Your task to perform on an android device: visit the assistant section in the google photos Image 0: 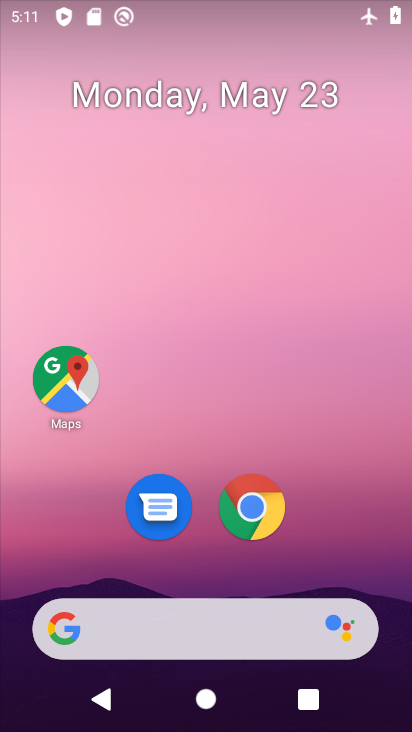
Step 0: drag from (313, 534) to (351, 93)
Your task to perform on an android device: visit the assistant section in the google photos Image 1: 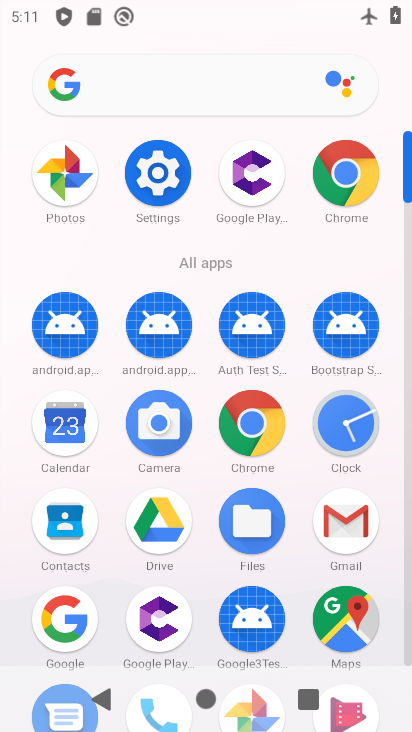
Step 1: drag from (307, 286) to (307, 41)
Your task to perform on an android device: visit the assistant section in the google photos Image 2: 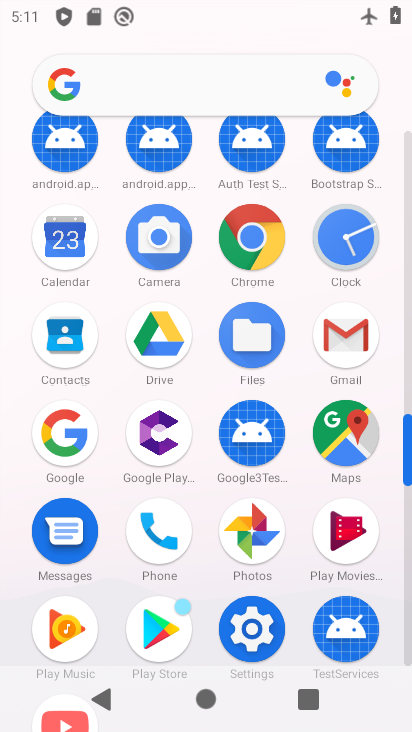
Step 2: click (271, 534)
Your task to perform on an android device: visit the assistant section in the google photos Image 3: 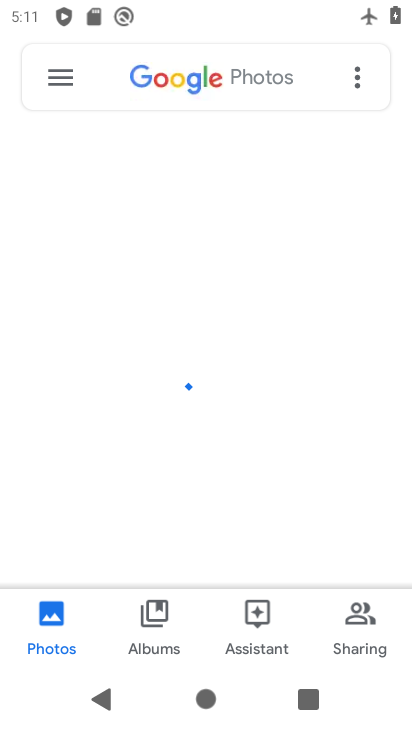
Step 3: drag from (327, 8) to (322, 485)
Your task to perform on an android device: visit the assistant section in the google photos Image 4: 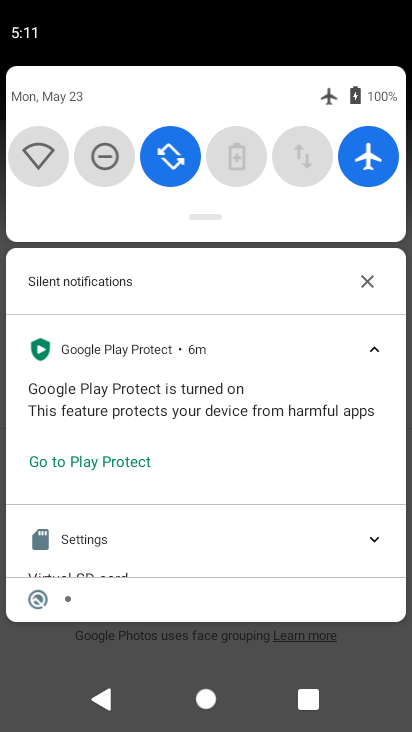
Step 4: click (375, 153)
Your task to perform on an android device: visit the assistant section in the google photos Image 5: 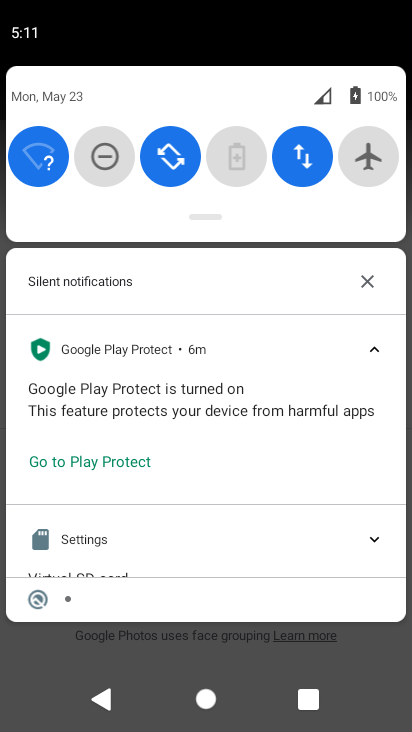
Step 5: drag from (341, 673) to (350, 67)
Your task to perform on an android device: visit the assistant section in the google photos Image 6: 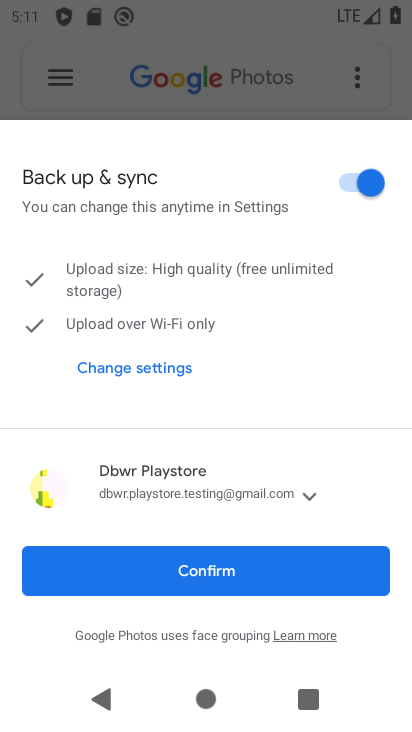
Step 6: click (258, 566)
Your task to perform on an android device: visit the assistant section in the google photos Image 7: 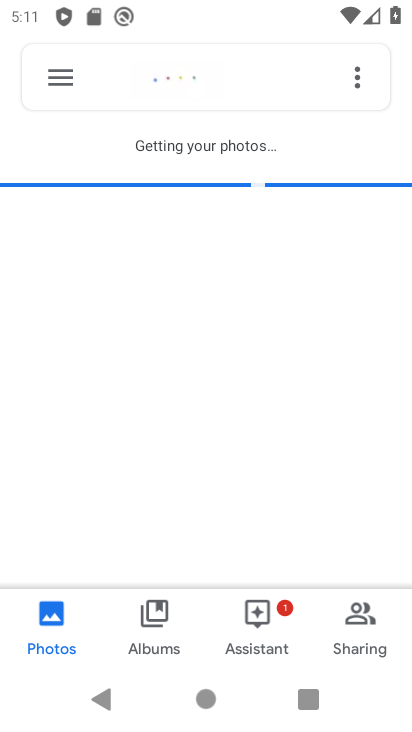
Step 7: click (254, 609)
Your task to perform on an android device: visit the assistant section in the google photos Image 8: 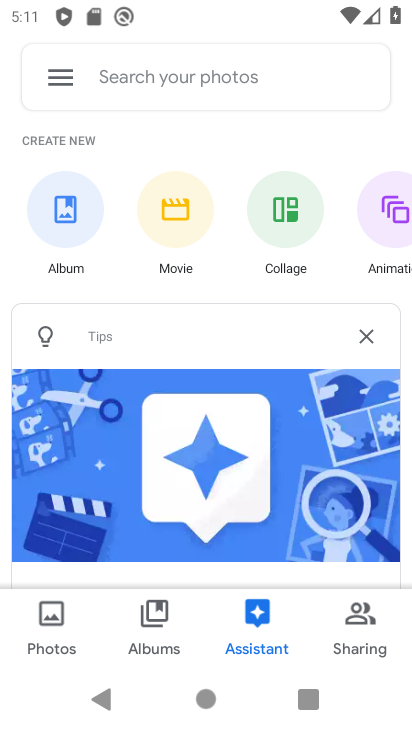
Step 8: task complete